Your task to perform on an android device: toggle wifi Image 0: 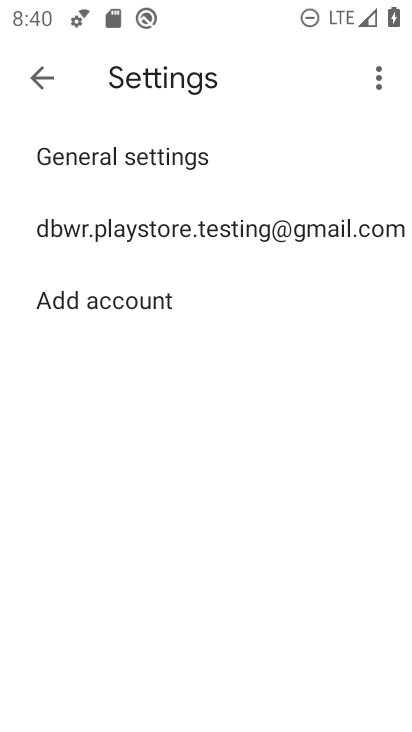
Step 0: press back button
Your task to perform on an android device: toggle wifi Image 1: 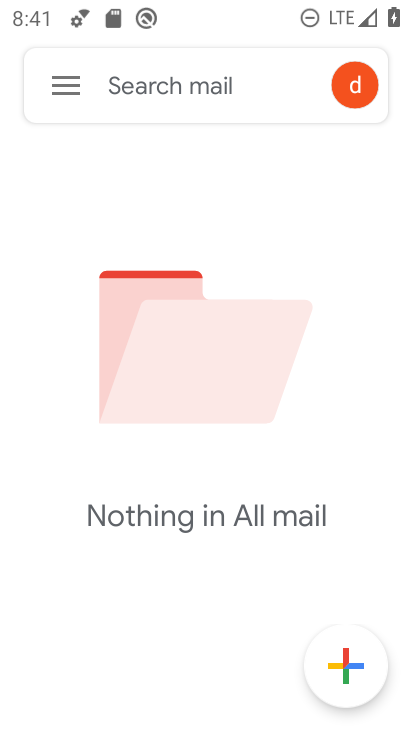
Step 1: press back button
Your task to perform on an android device: toggle wifi Image 2: 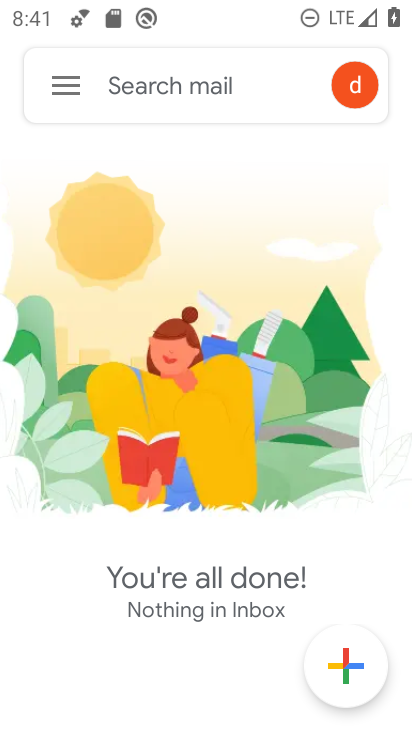
Step 2: drag from (130, 16) to (147, 563)
Your task to perform on an android device: toggle wifi Image 3: 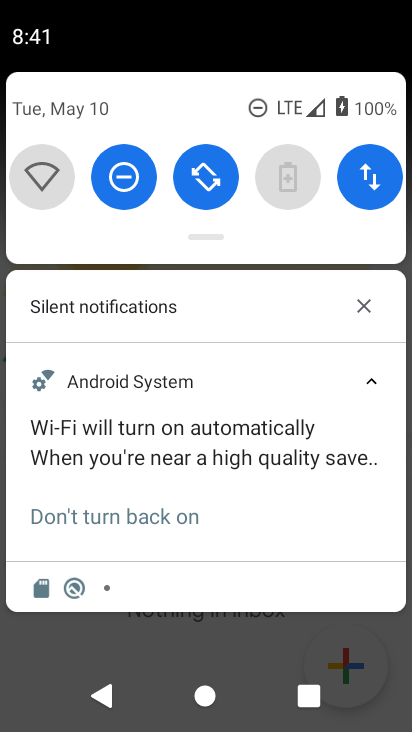
Step 3: click (47, 187)
Your task to perform on an android device: toggle wifi Image 4: 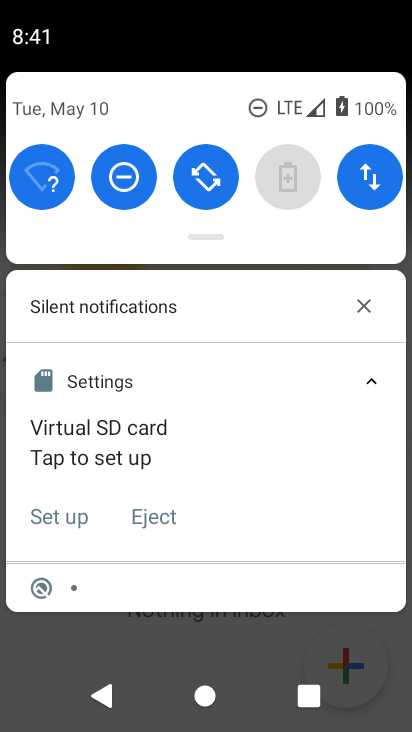
Step 4: task complete